Your task to perform on an android device: Open calendar and show me the second week of next month Image 0: 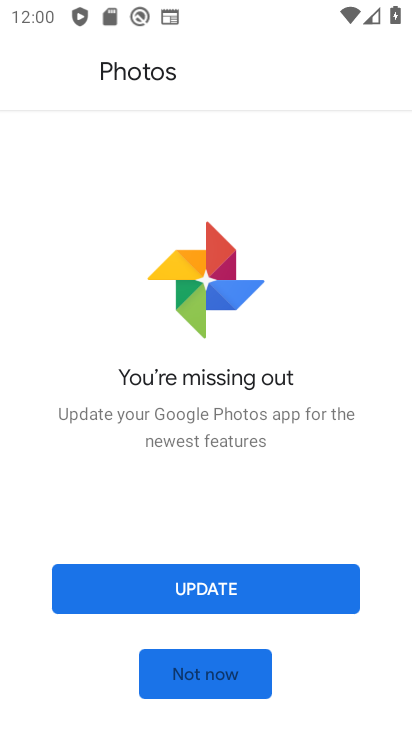
Step 0: press home button
Your task to perform on an android device: Open calendar and show me the second week of next month Image 1: 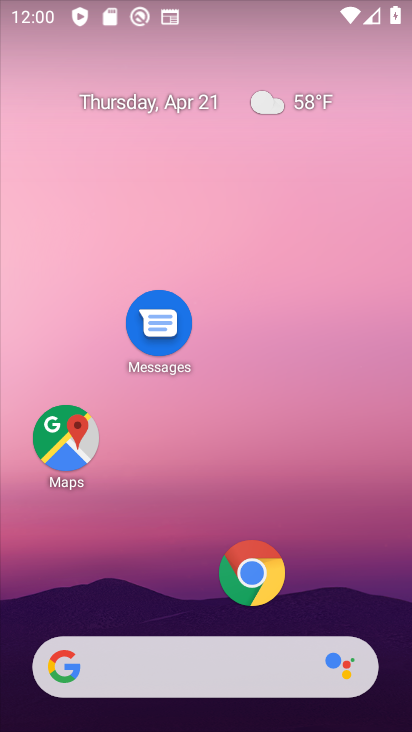
Step 1: drag from (181, 562) to (149, 95)
Your task to perform on an android device: Open calendar and show me the second week of next month Image 2: 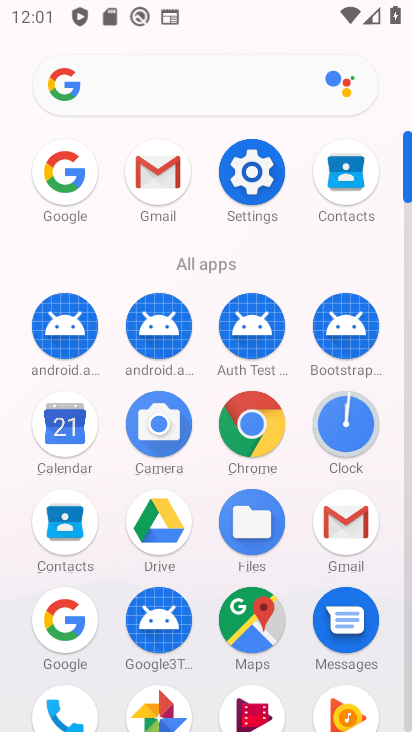
Step 2: click (60, 424)
Your task to perform on an android device: Open calendar and show me the second week of next month Image 3: 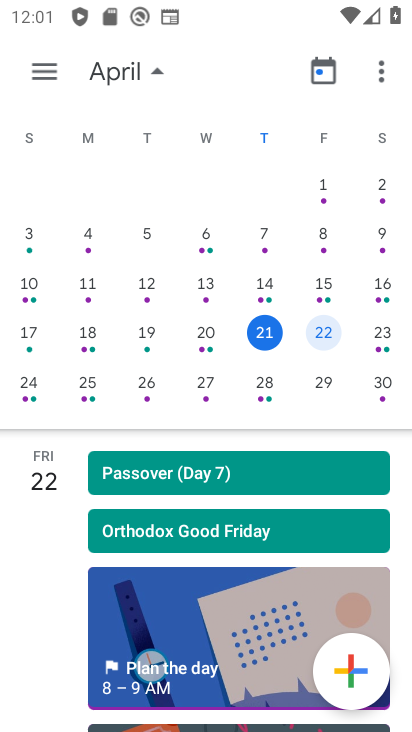
Step 3: drag from (382, 415) to (0, 390)
Your task to perform on an android device: Open calendar and show me the second week of next month Image 4: 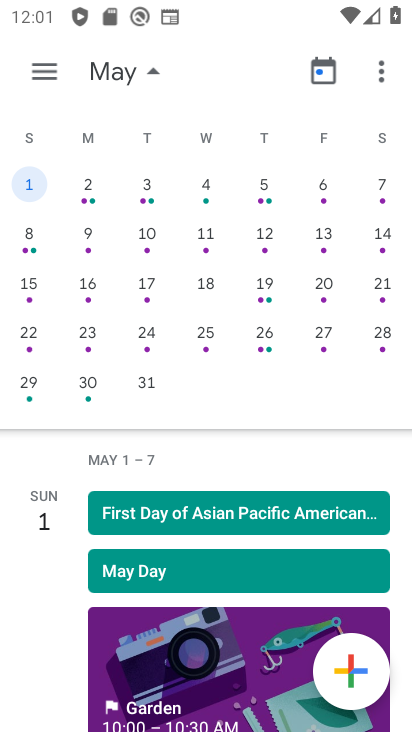
Step 4: click (144, 238)
Your task to perform on an android device: Open calendar and show me the second week of next month Image 5: 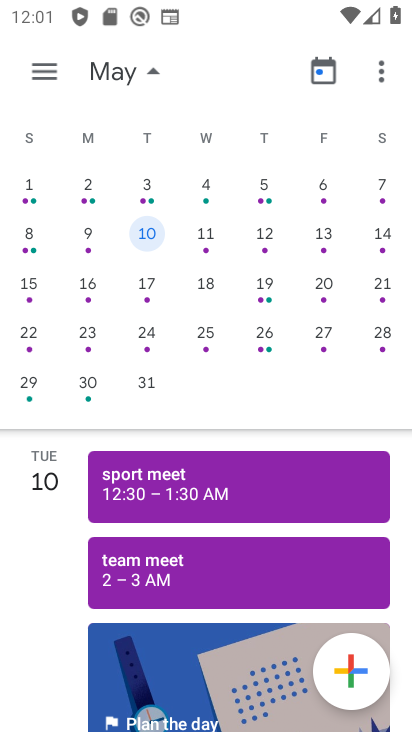
Step 5: task complete